Your task to perform on an android device: Open Wikipedia Image 0: 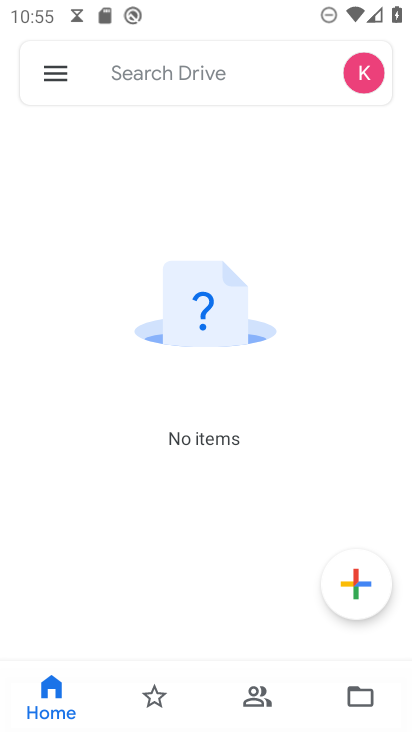
Step 0: press home button
Your task to perform on an android device: Open Wikipedia Image 1: 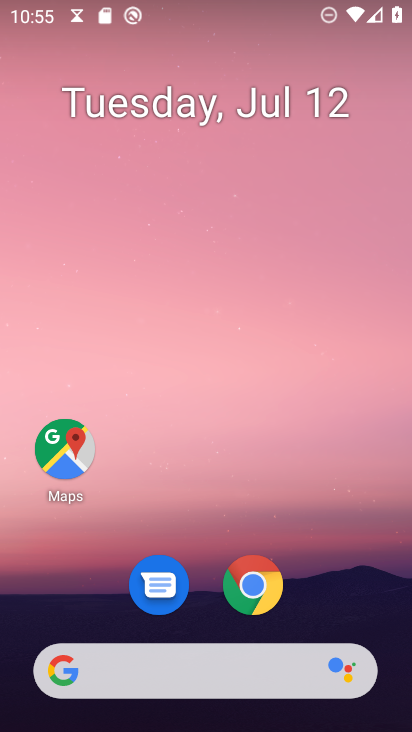
Step 1: click (257, 598)
Your task to perform on an android device: Open Wikipedia Image 2: 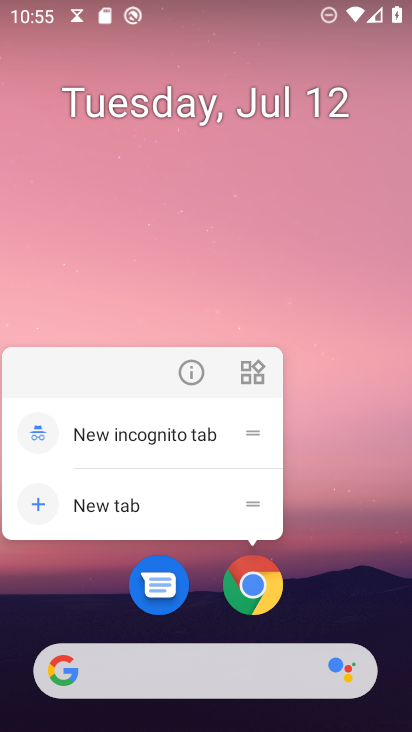
Step 2: click (257, 592)
Your task to perform on an android device: Open Wikipedia Image 3: 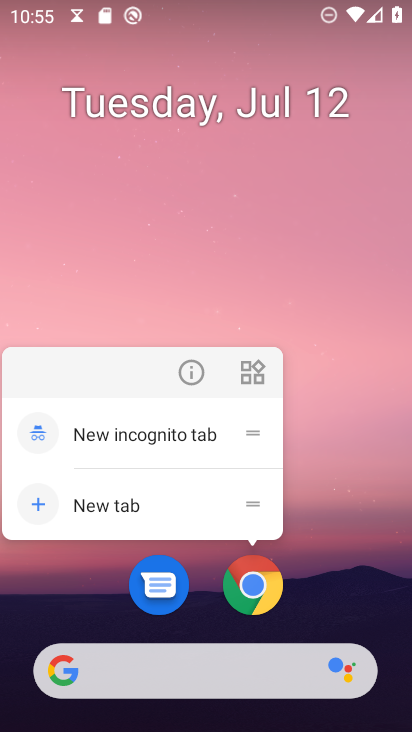
Step 3: click (257, 592)
Your task to perform on an android device: Open Wikipedia Image 4: 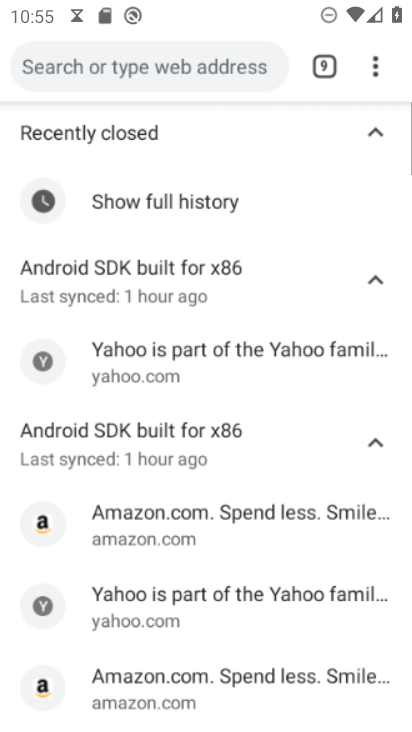
Step 4: drag from (375, 65) to (196, 129)
Your task to perform on an android device: Open Wikipedia Image 5: 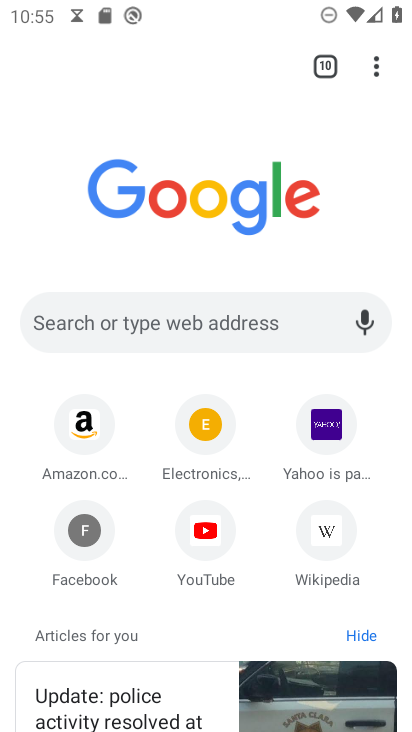
Step 5: click (334, 532)
Your task to perform on an android device: Open Wikipedia Image 6: 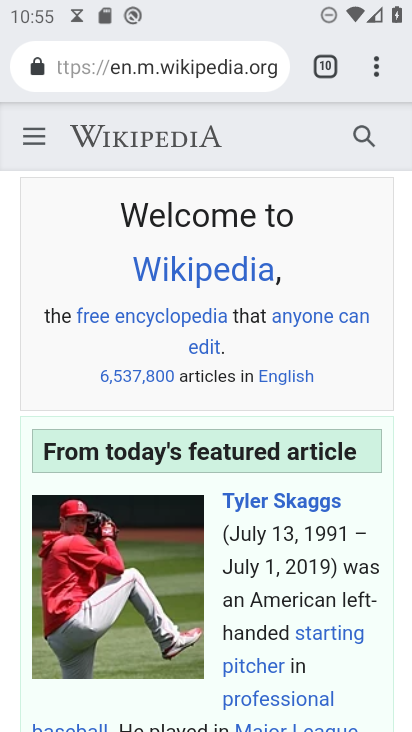
Step 6: task complete